Your task to perform on an android device: change the clock display to digital Image 0: 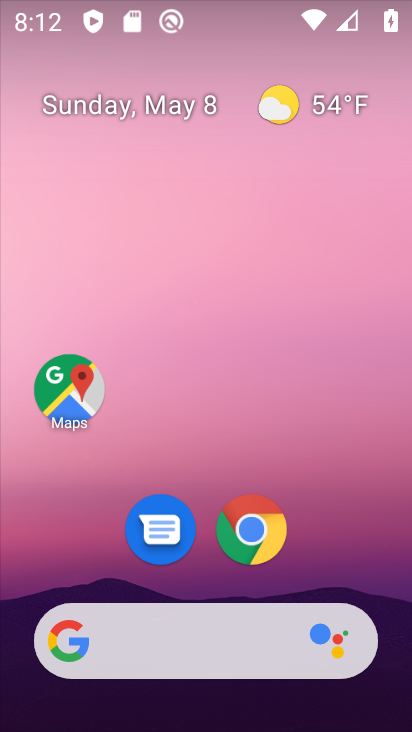
Step 0: drag from (368, 575) to (380, 196)
Your task to perform on an android device: change the clock display to digital Image 1: 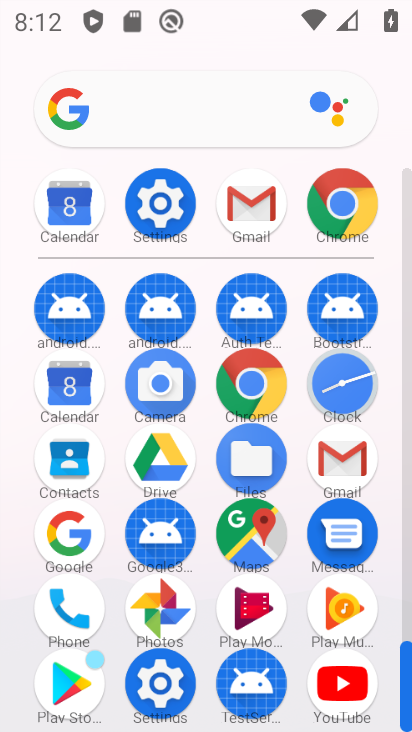
Step 1: click (323, 392)
Your task to perform on an android device: change the clock display to digital Image 2: 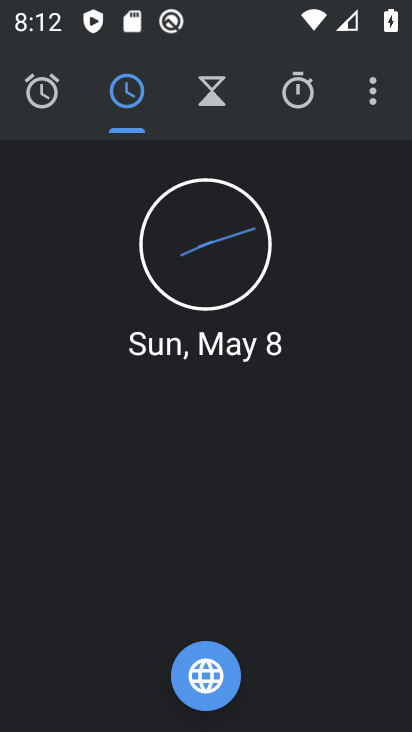
Step 2: click (370, 105)
Your task to perform on an android device: change the clock display to digital Image 3: 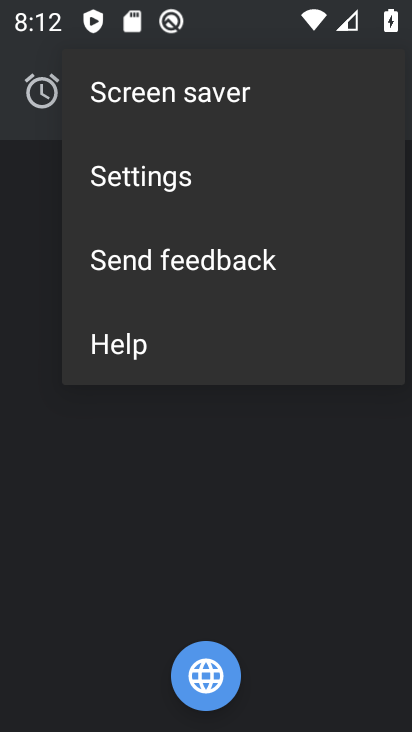
Step 3: click (132, 177)
Your task to perform on an android device: change the clock display to digital Image 4: 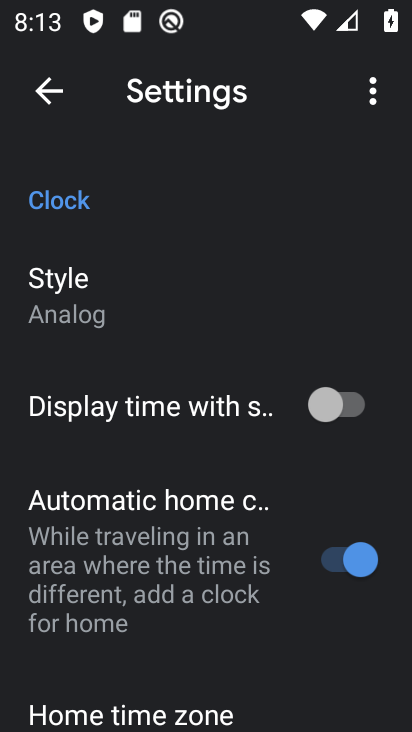
Step 4: click (157, 311)
Your task to perform on an android device: change the clock display to digital Image 5: 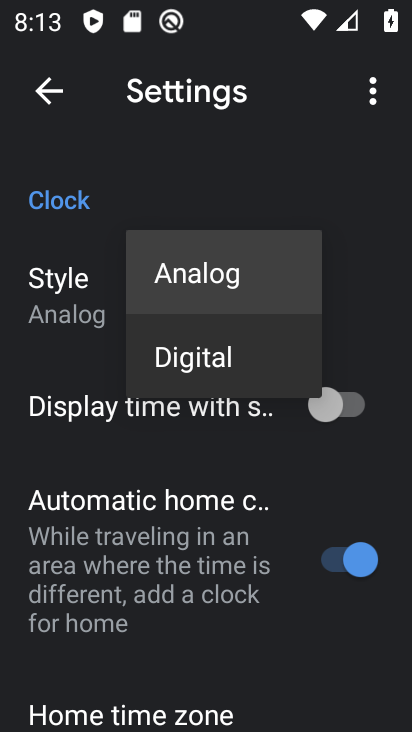
Step 5: click (186, 356)
Your task to perform on an android device: change the clock display to digital Image 6: 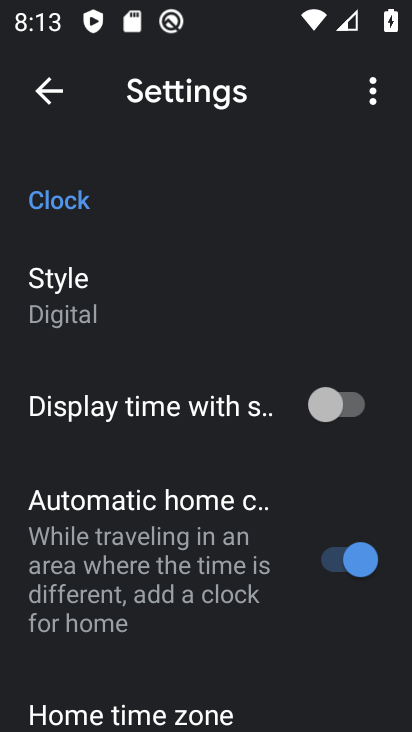
Step 6: task complete